Your task to perform on an android device: turn on bluetooth scan Image 0: 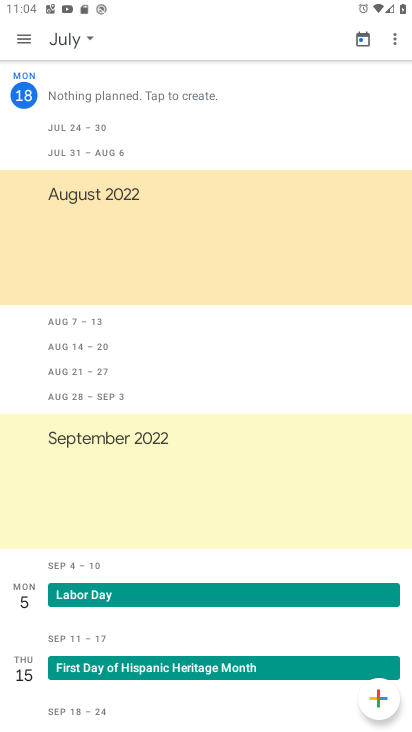
Step 0: press home button
Your task to perform on an android device: turn on bluetooth scan Image 1: 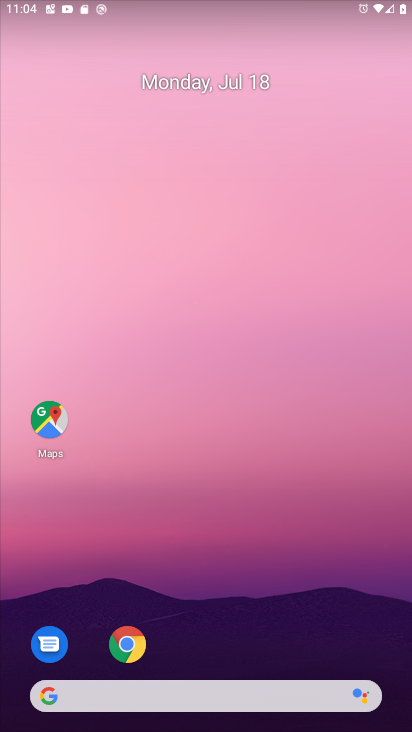
Step 1: drag from (222, 627) to (120, 171)
Your task to perform on an android device: turn on bluetooth scan Image 2: 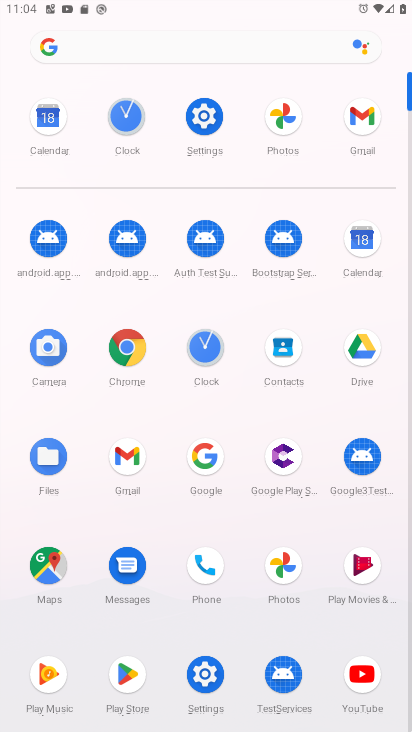
Step 2: click (192, 151)
Your task to perform on an android device: turn on bluetooth scan Image 3: 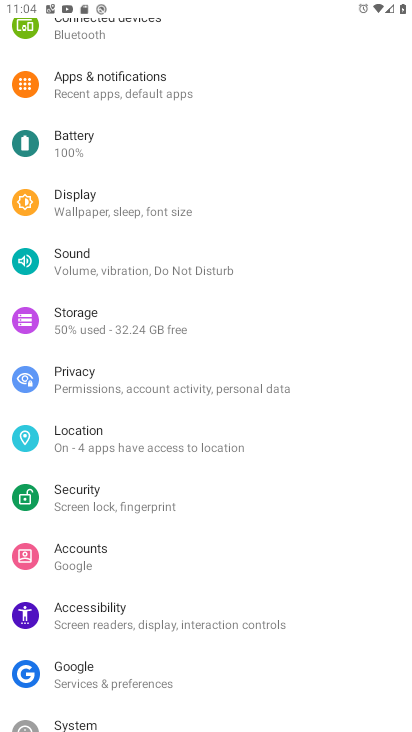
Step 3: drag from (132, 662) to (166, 356)
Your task to perform on an android device: turn on bluetooth scan Image 4: 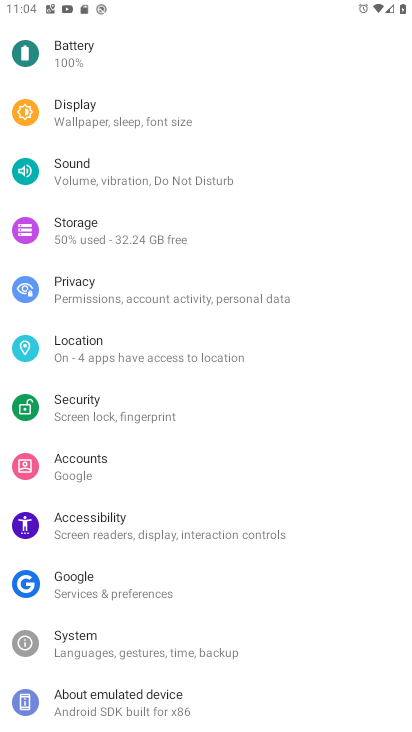
Step 4: click (161, 527)
Your task to perform on an android device: turn on bluetooth scan Image 5: 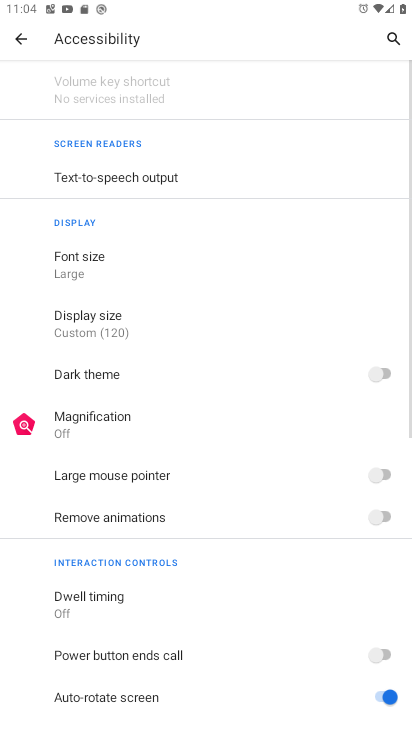
Step 5: task complete